Your task to perform on an android device: Check the news Image 0: 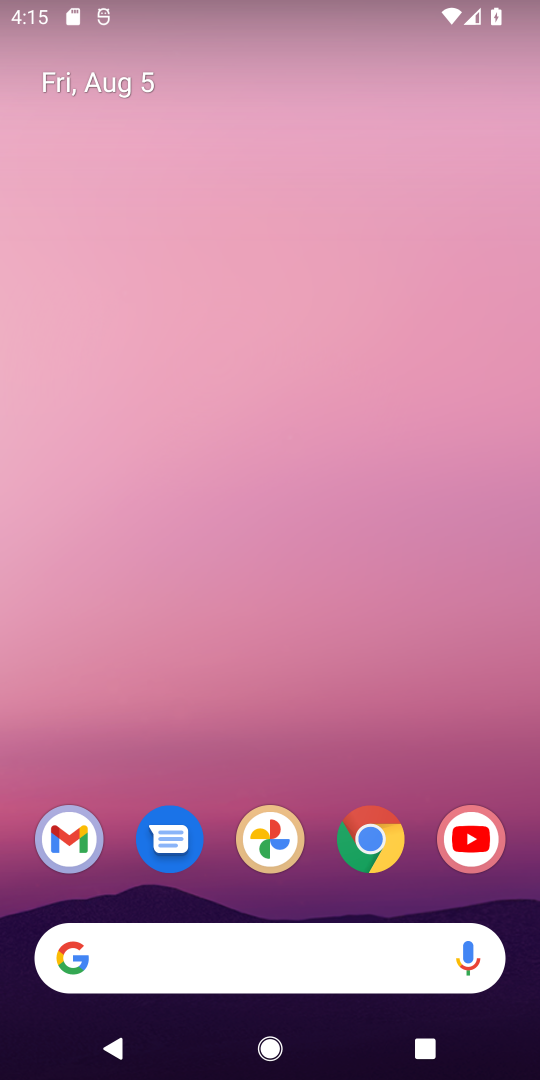
Step 0: click (226, 248)
Your task to perform on an android device: Check the news Image 1: 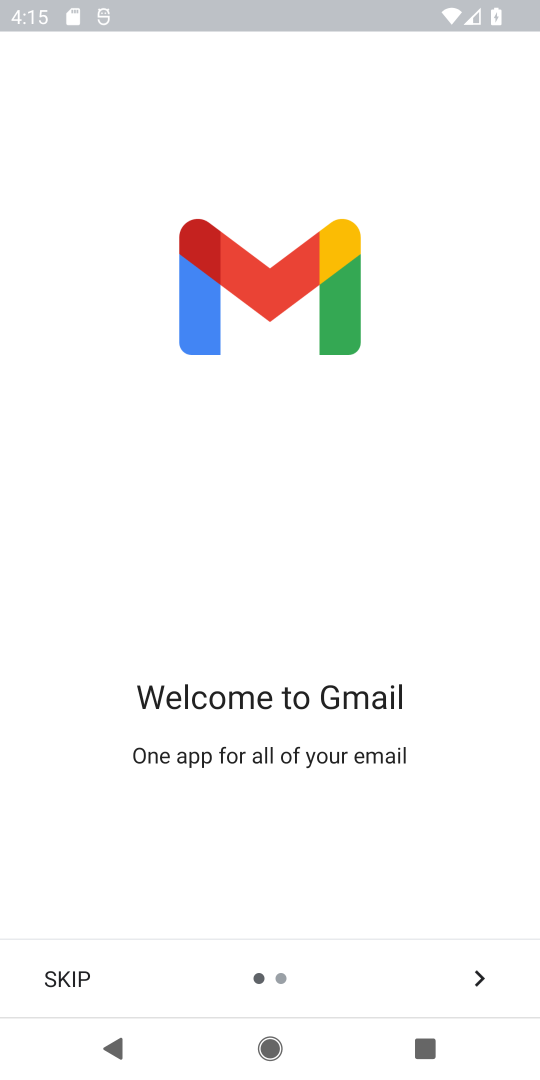
Step 1: press home button
Your task to perform on an android device: Check the news Image 2: 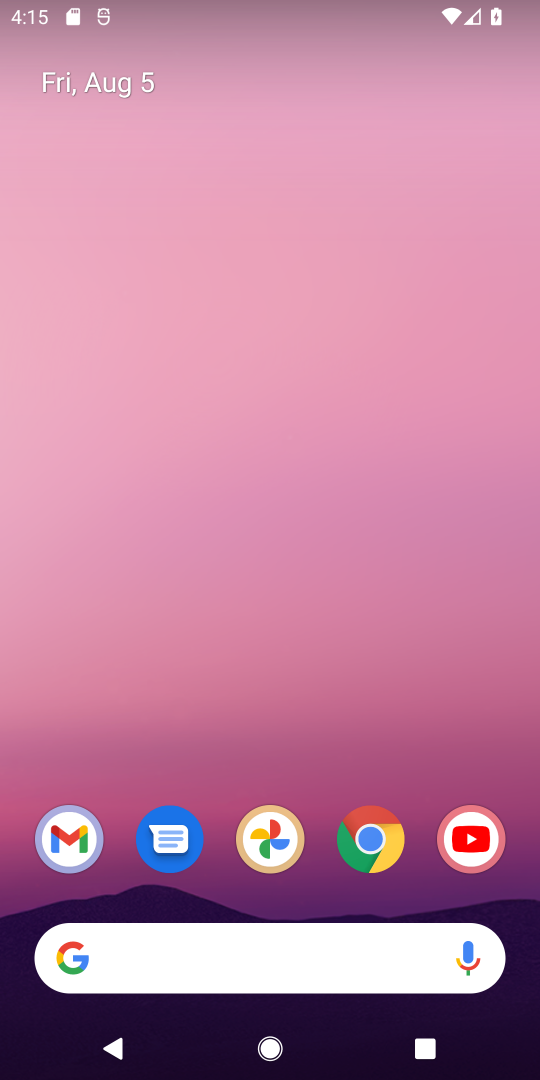
Step 2: drag from (228, 787) to (214, 328)
Your task to perform on an android device: Check the news Image 3: 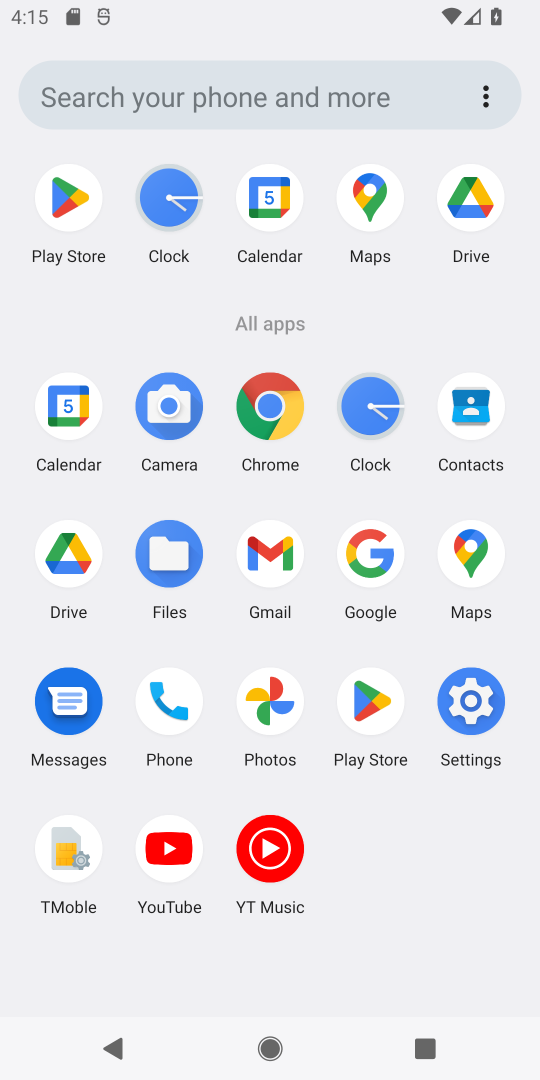
Step 3: click (364, 585)
Your task to perform on an android device: Check the news Image 4: 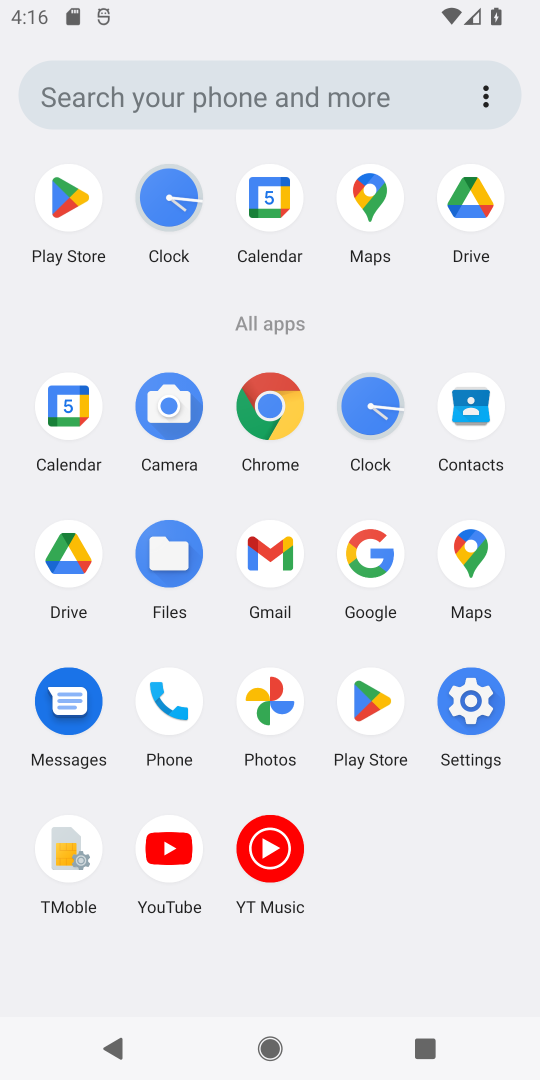
Step 4: click (363, 546)
Your task to perform on an android device: Check the news Image 5: 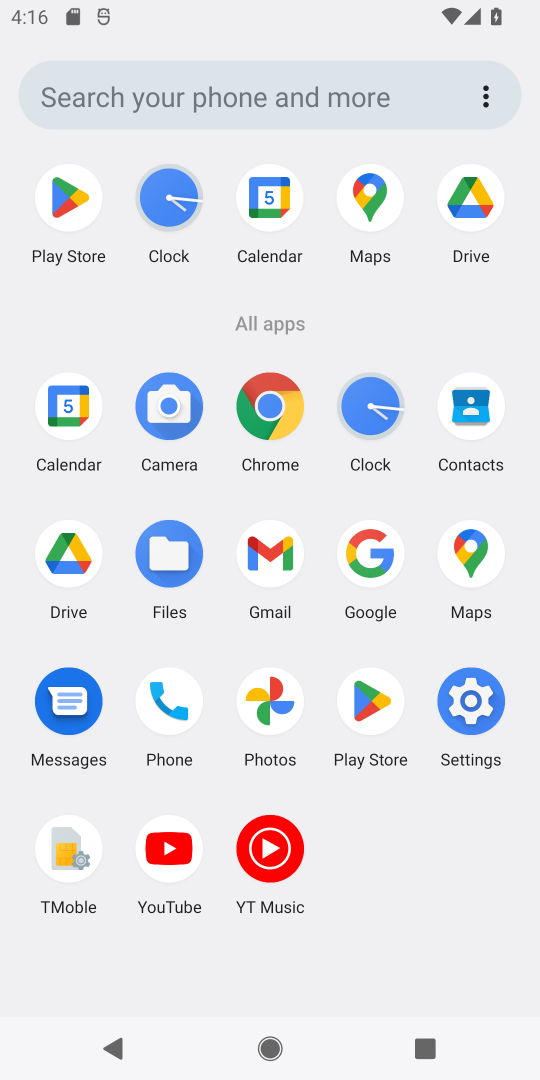
Step 5: click (379, 574)
Your task to perform on an android device: Check the news Image 6: 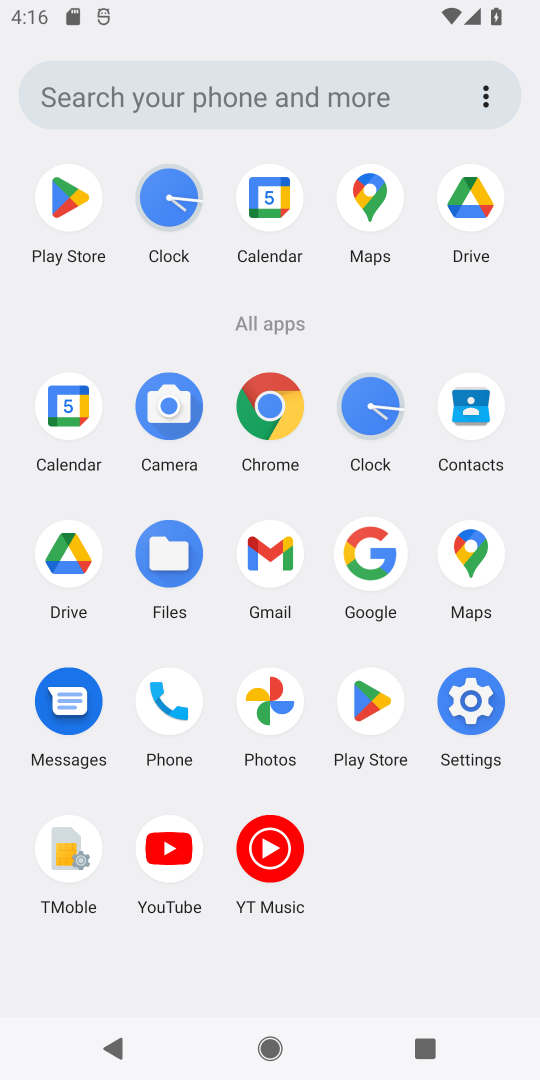
Step 6: click (362, 548)
Your task to perform on an android device: Check the news Image 7: 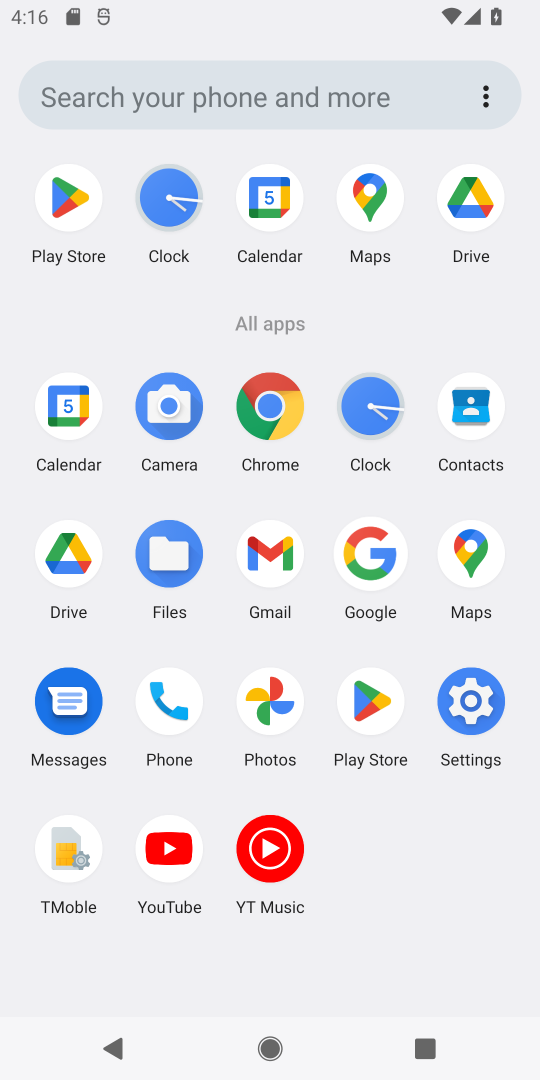
Step 7: click (362, 548)
Your task to perform on an android device: Check the news Image 8: 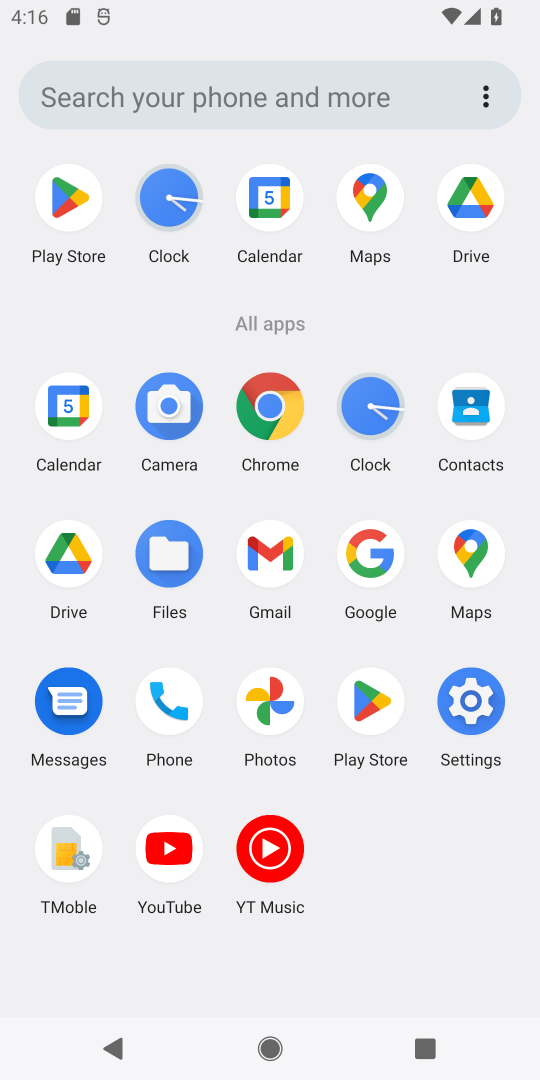
Step 8: task complete